Your task to perform on an android device: move a message to another label in the gmail app Image 0: 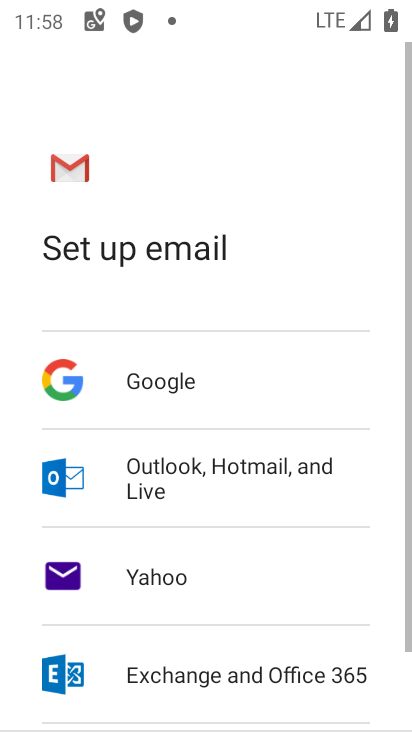
Step 0: press home button
Your task to perform on an android device: move a message to another label in the gmail app Image 1: 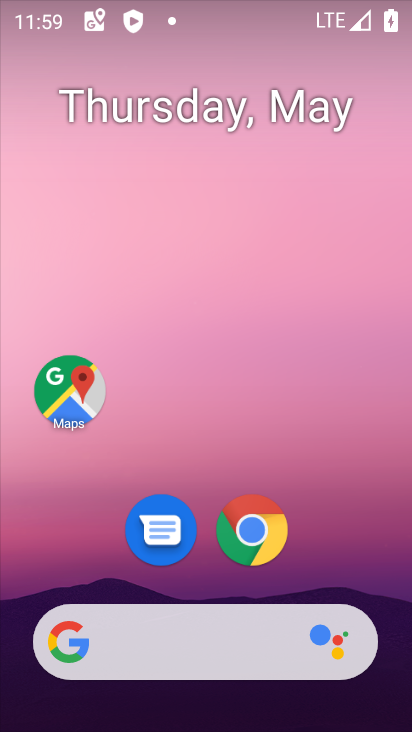
Step 1: drag from (222, 638) to (226, 1)
Your task to perform on an android device: move a message to another label in the gmail app Image 2: 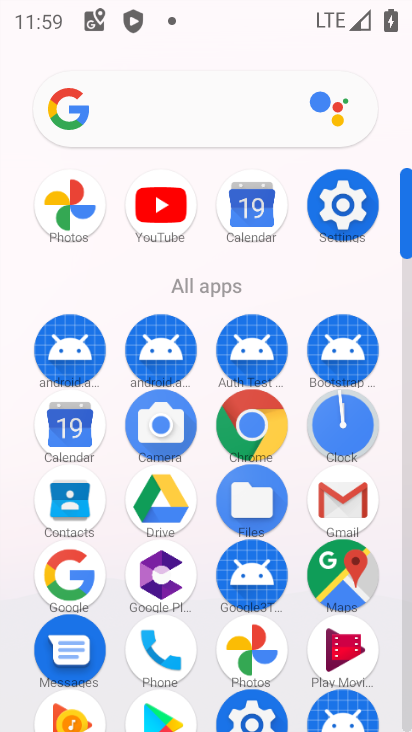
Step 2: click (332, 484)
Your task to perform on an android device: move a message to another label in the gmail app Image 3: 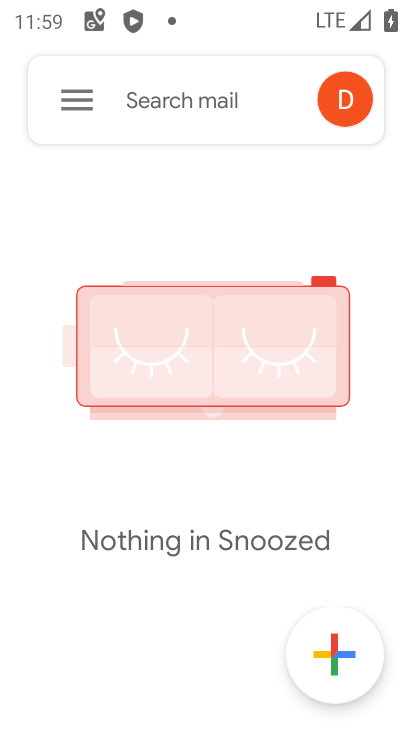
Step 3: click (76, 108)
Your task to perform on an android device: move a message to another label in the gmail app Image 4: 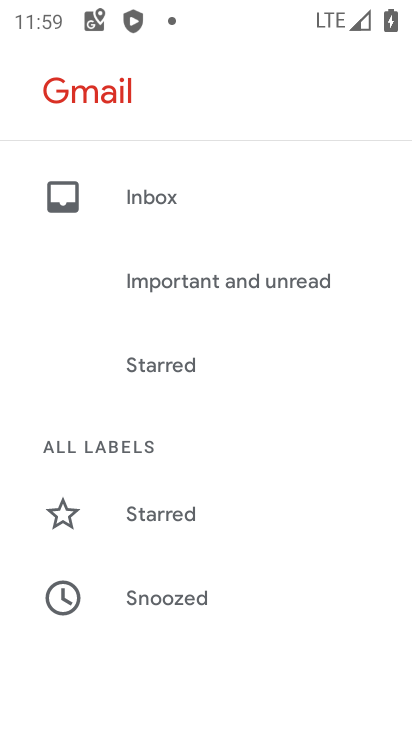
Step 4: drag from (163, 610) to (225, 130)
Your task to perform on an android device: move a message to another label in the gmail app Image 5: 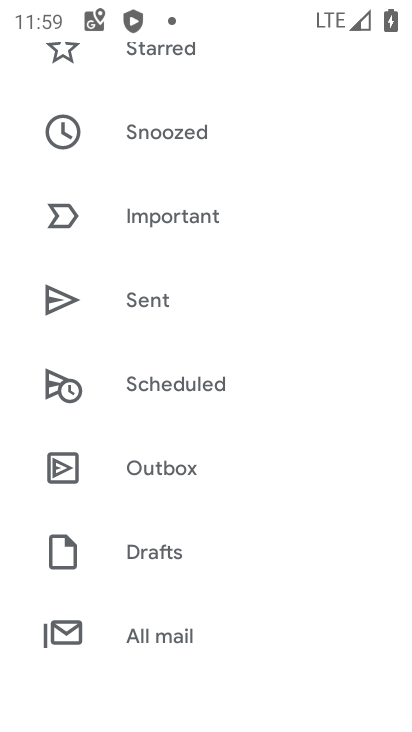
Step 5: drag from (209, 561) to (206, 236)
Your task to perform on an android device: move a message to another label in the gmail app Image 6: 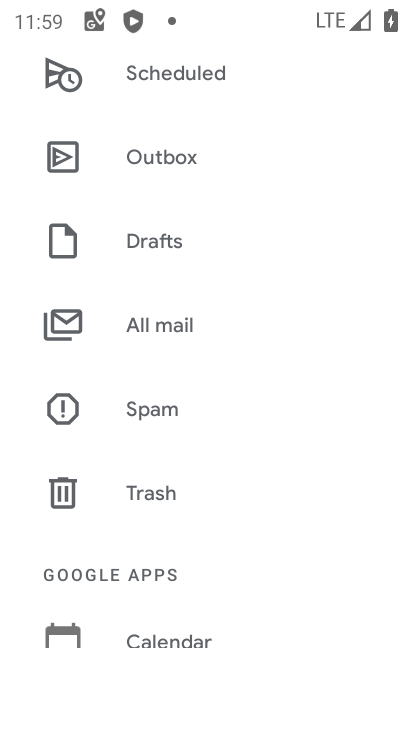
Step 6: click (189, 316)
Your task to perform on an android device: move a message to another label in the gmail app Image 7: 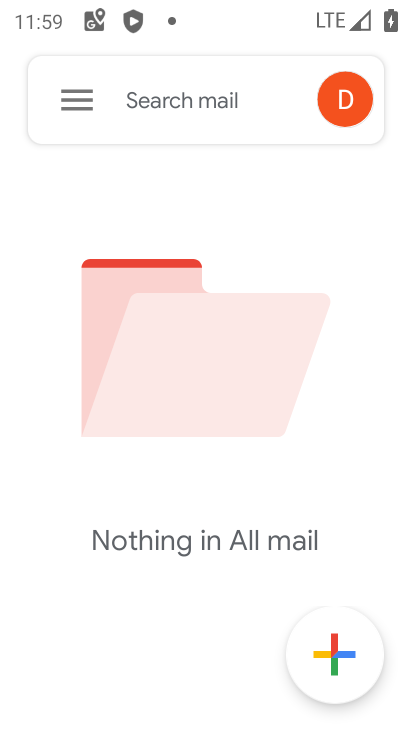
Step 7: task complete